Your task to perform on an android device: Open the Play Movies app and select the watchlist tab. Image 0: 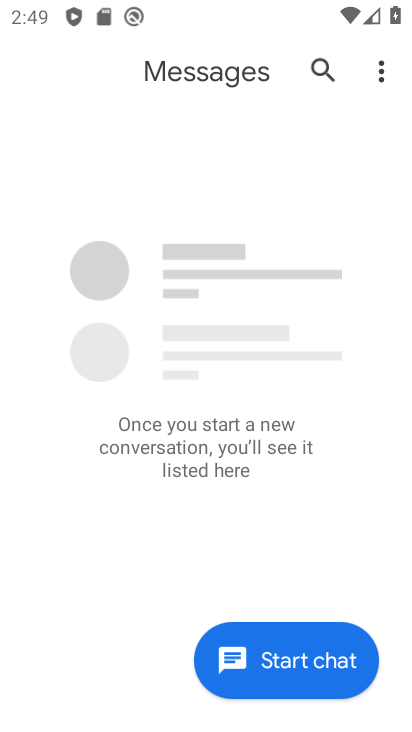
Step 0: press back button
Your task to perform on an android device: Open the Play Movies app and select the watchlist tab. Image 1: 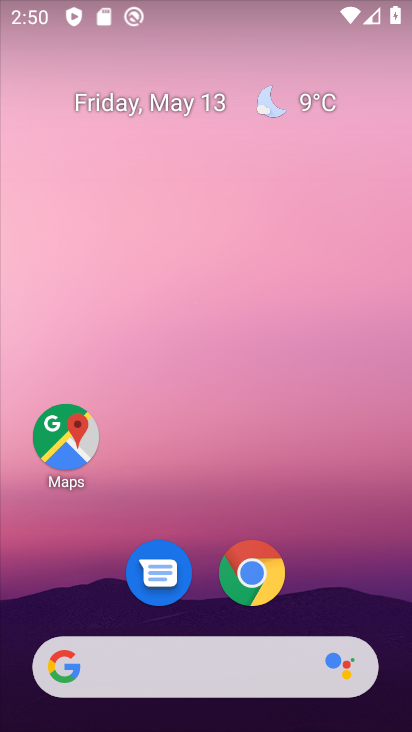
Step 1: drag from (185, 610) to (184, 81)
Your task to perform on an android device: Open the Play Movies app and select the watchlist tab. Image 2: 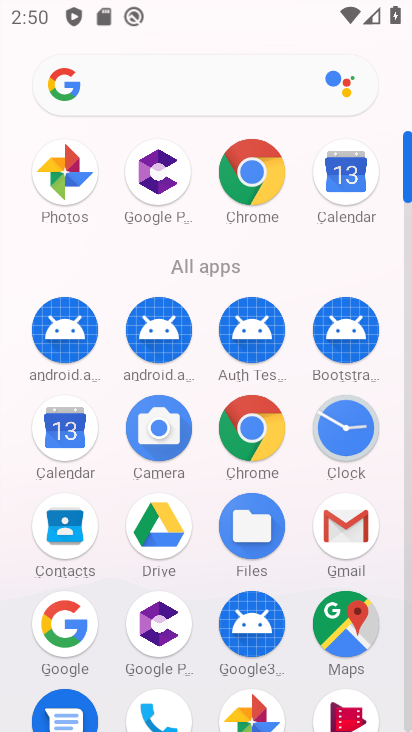
Step 2: drag from (177, 607) to (249, 79)
Your task to perform on an android device: Open the Play Movies app and select the watchlist tab. Image 3: 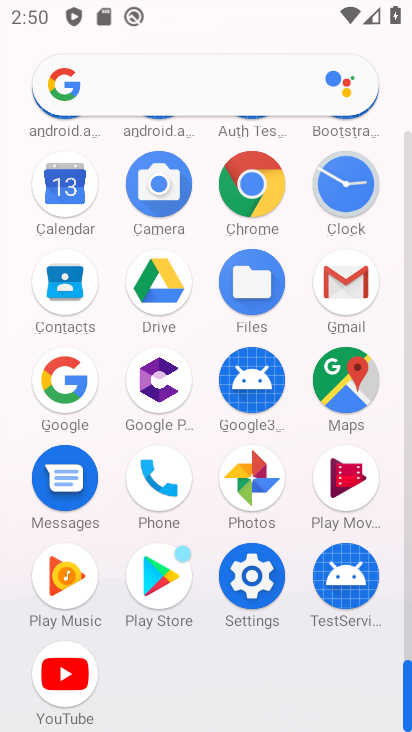
Step 3: click (342, 505)
Your task to perform on an android device: Open the Play Movies app and select the watchlist tab. Image 4: 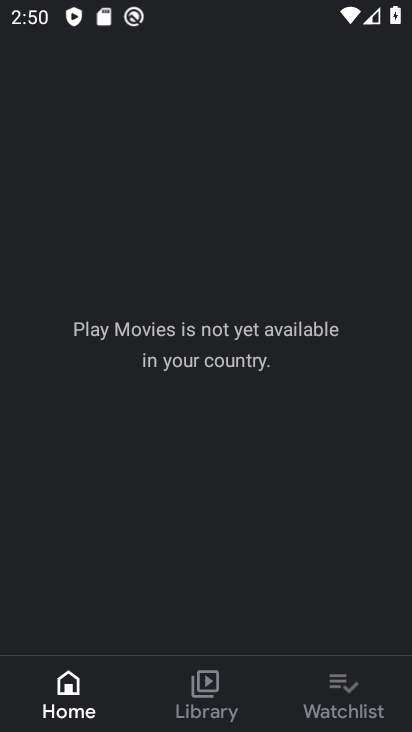
Step 4: click (339, 693)
Your task to perform on an android device: Open the Play Movies app and select the watchlist tab. Image 5: 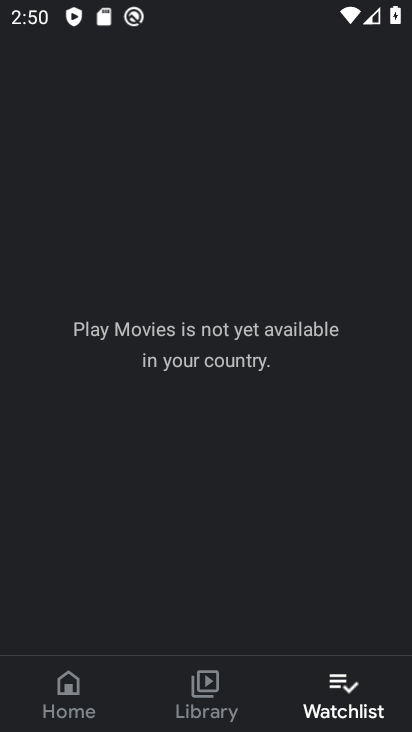
Step 5: task complete